Your task to perform on an android device: What's on my calendar today? Image 0: 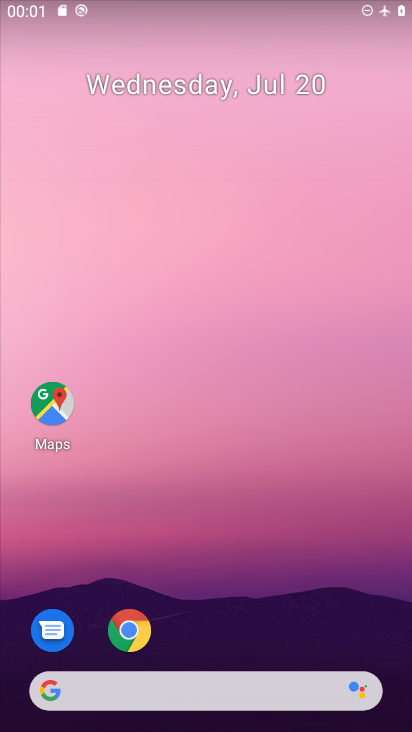
Step 0: drag from (215, 602) to (212, 111)
Your task to perform on an android device: What's on my calendar today? Image 1: 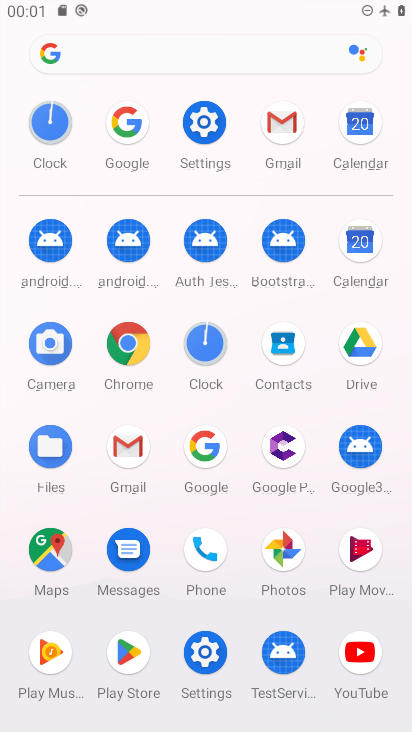
Step 1: click (358, 276)
Your task to perform on an android device: What's on my calendar today? Image 2: 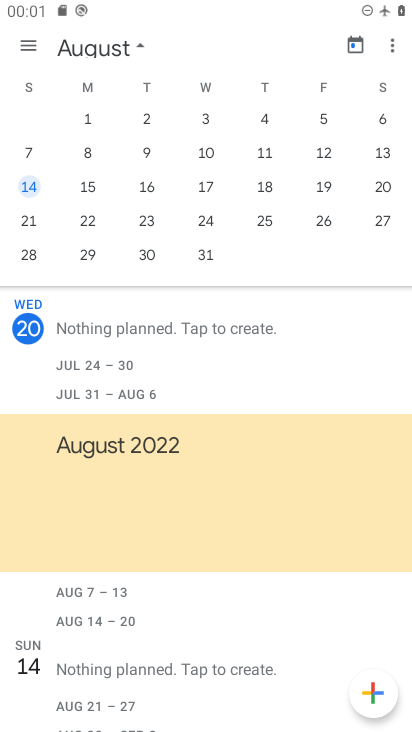
Step 2: drag from (31, 179) to (370, 201)
Your task to perform on an android device: What's on my calendar today? Image 3: 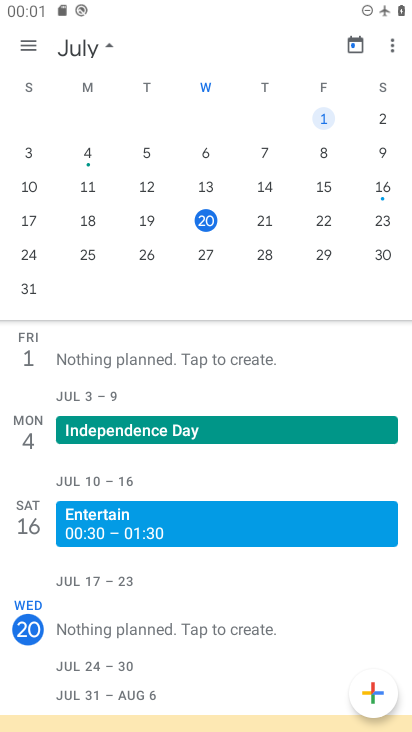
Step 3: click (197, 218)
Your task to perform on an android device: What's on my calendar today? Image 4: 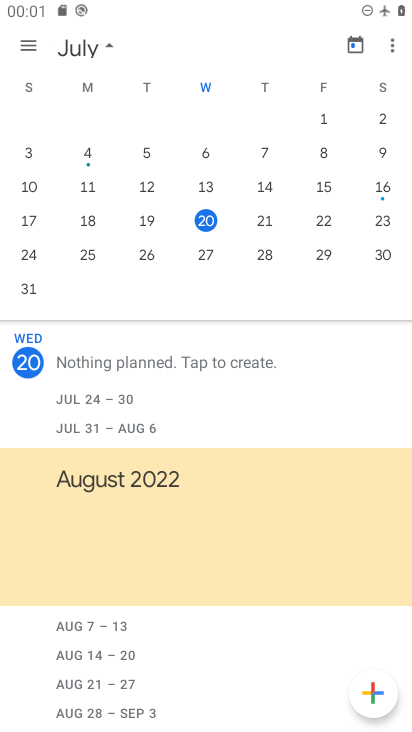
Step 4: task complete